Your task to perform on an android device: Turn off the flashlight Image 0: 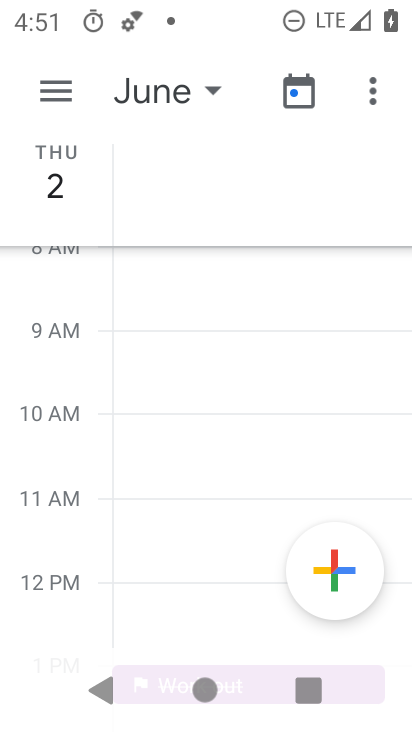
Step 0: press home button
Your task to perform on an android device: Turn off the flashlight Image 1: 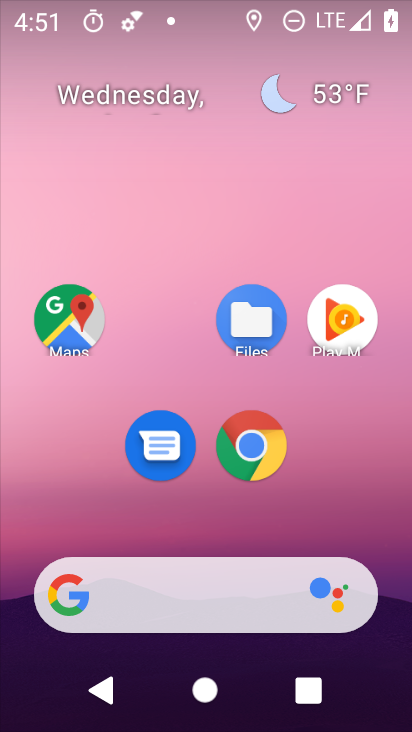
Step 1: drag from (374, 685) to (352, 444)
Your task to perform on an android device: Turn off the flashlight Image 2: 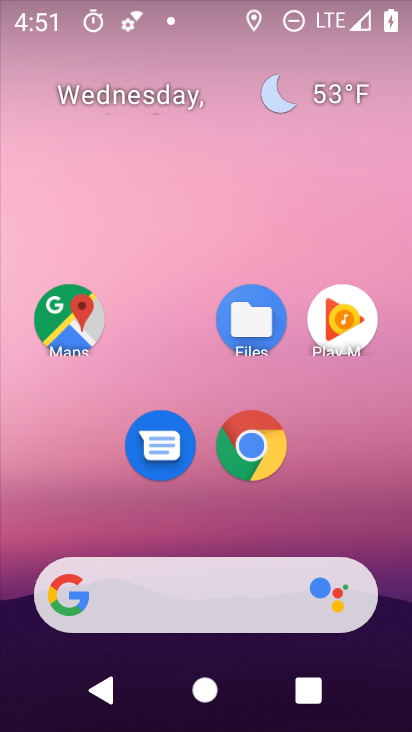
Step 2: drag from (365, 507) to (367, 269)
Your task to perform on an android device: Turn off the flashlight Image 3: 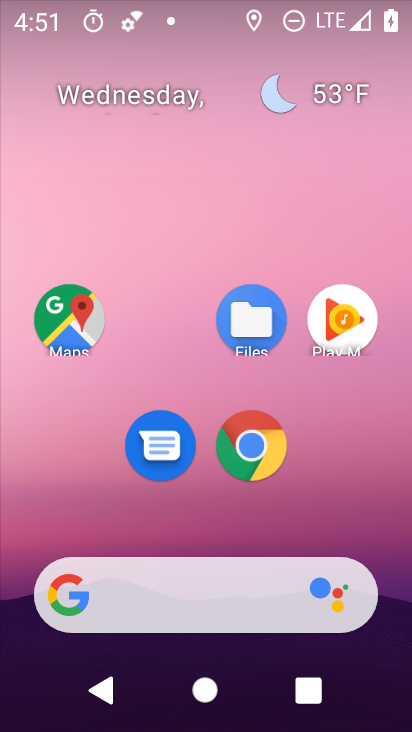
Step 3: drag from (380, 503) to (379, 260)
Your task to perform on an android device: Turn off the flashlight Image 4: 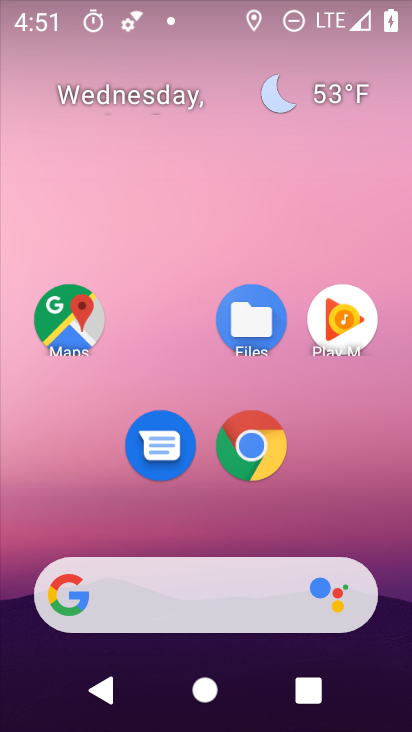
Step 4: drag from (51, 489) to (0, 160)
Your task to perform on an android device: Turn off the flashlight Image 5: 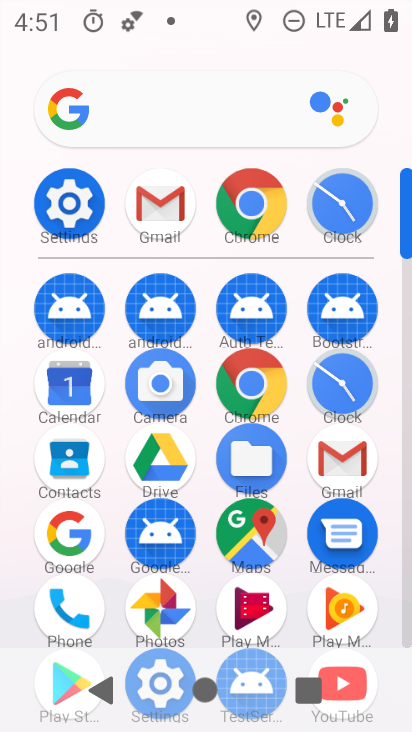
Step 5: click (80, 213)
Your task to perform on an android device: Turn off the flashlight Image 6: 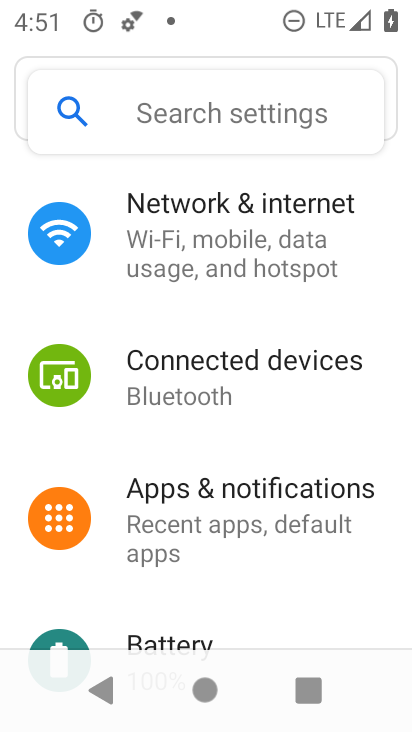
Step 6: drag from (324, 600) to (315, 284)
Your task to perform on an android device: Turn off the flashlight Image 7: 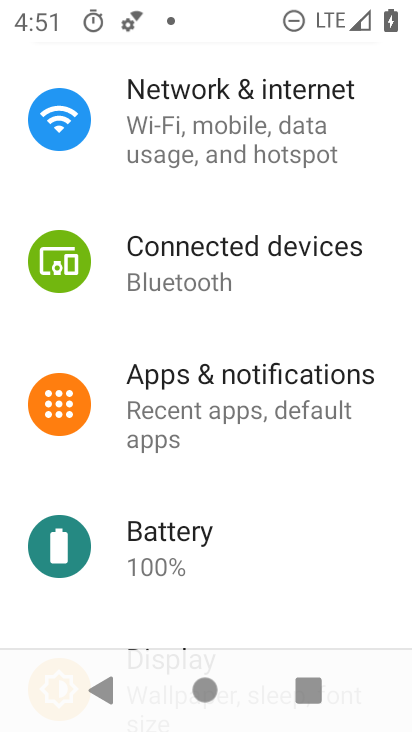
Step 7: click (315, 284)
Your task to perform on an android device: Turn off the flashlight Image 8: 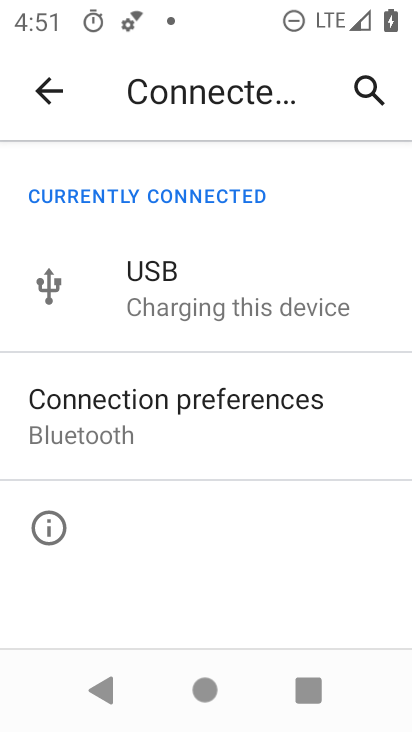
Step 8: press back button
Your task to perform on an android device: Turn off the flashlight Image 9: 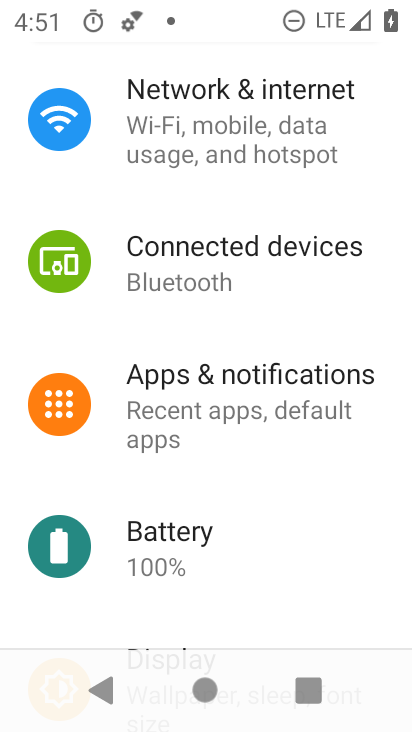
Step 9: drag from (291, 613) to (228, 283)
Your task to perform on an android device: Turn off the flashlight Image 10: 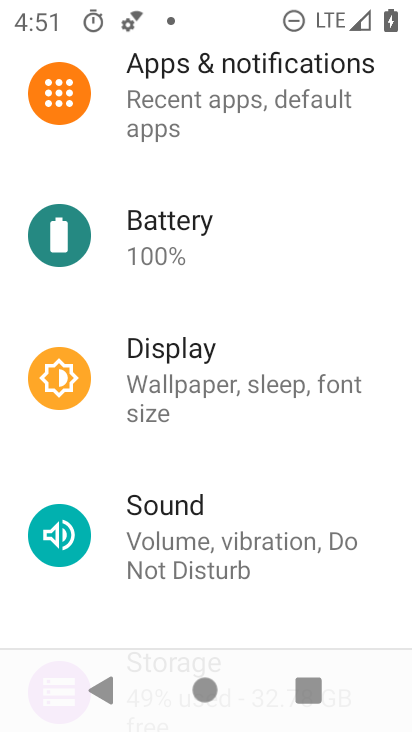
Step 10: click (183, 364)
Your task to perform on an android device: Turn off the flashlight Image 11: 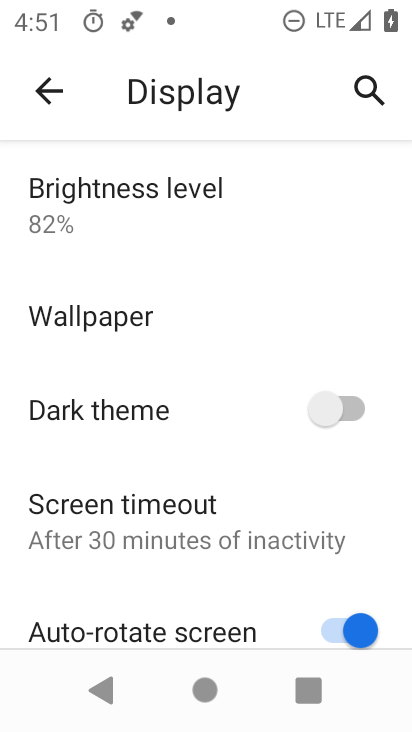
Step 11: drag from (187, 576) to (235, 164)
Your task to perform on an android device: Turn off the flashlight Image 12: 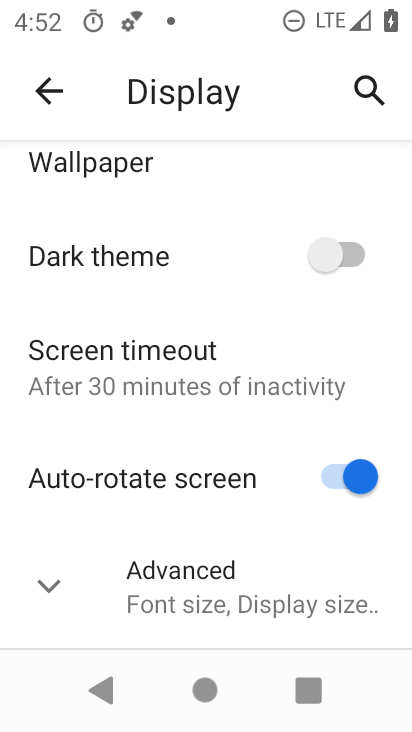
Step 12: click (190, 607)
Your task to perform on an android device: Turn off the flashlight Image 13: 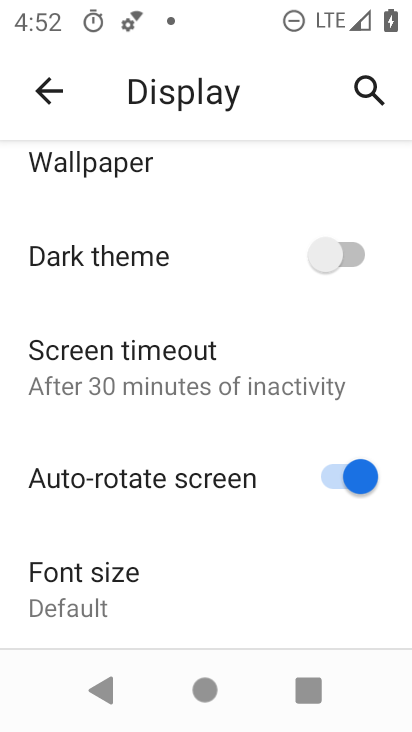
Step 13: task complete